Your task to perform on an android device: Search for "macbook pro" on target.com, select the first entry, and add it to the cart. Image 0: 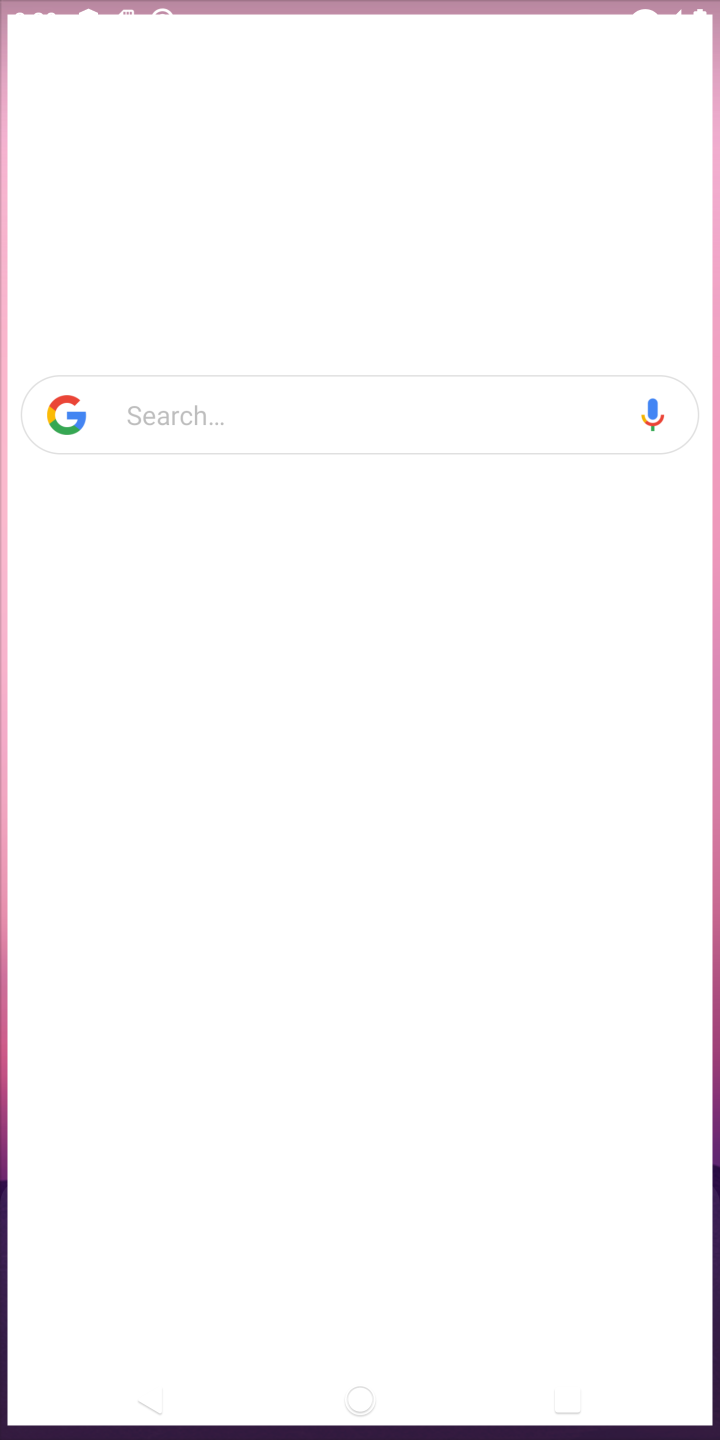
Step 0: press home button
Your task to perform on an android device: Search for "macbook pro" on target.com, select the first entry, and add it to the cart. Image 1: 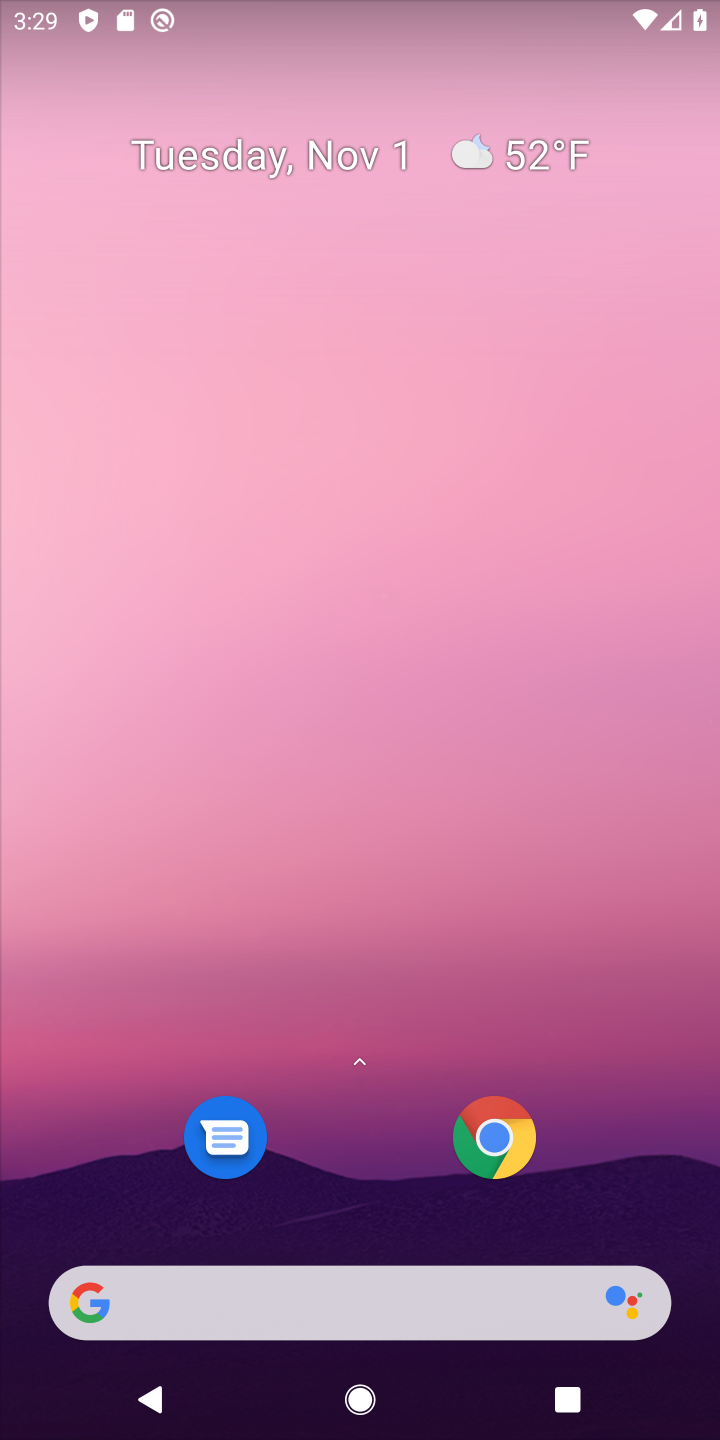
Step 1: click (365, 1315)
Your task to perform on an android device: Search for "macbook pro" on target.com, select the first entry, and add it to the cart. Image 2: 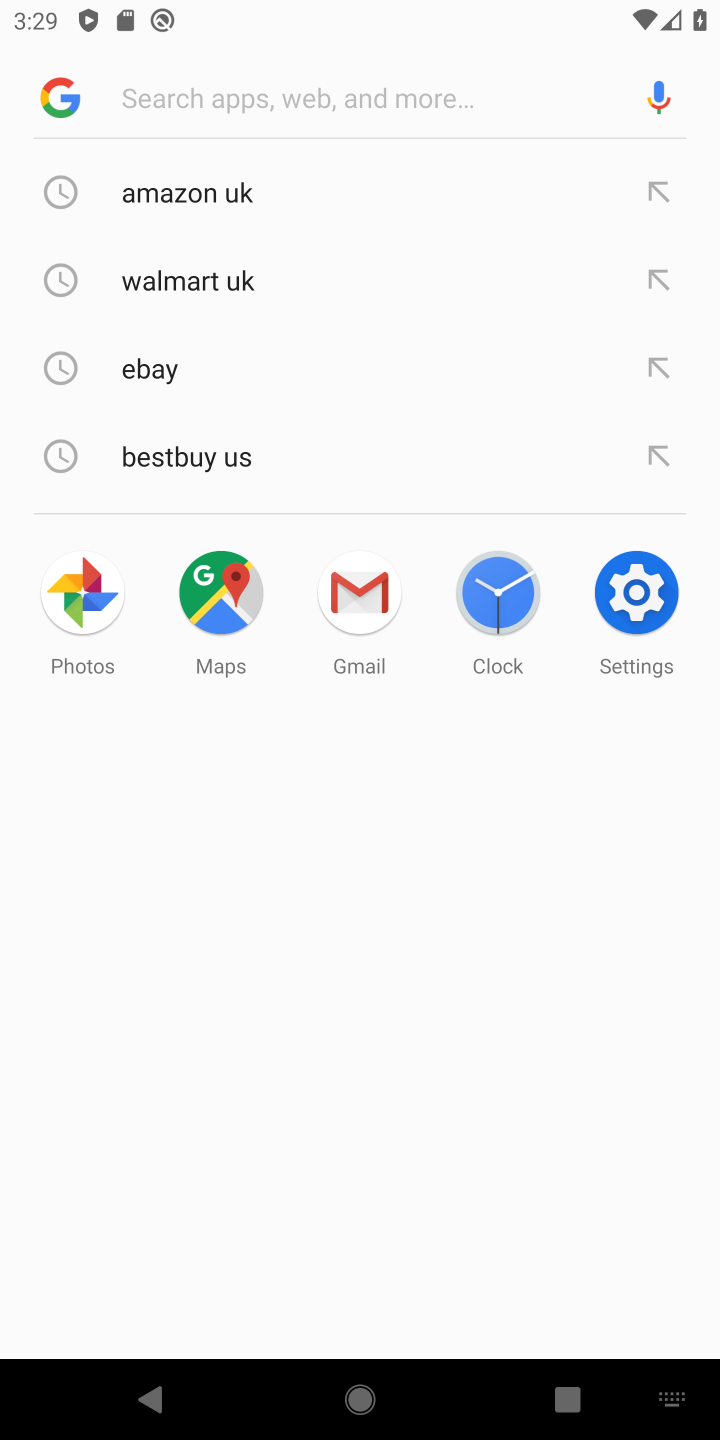
Step 2: type "macbook pro"
Your task to perform on an android device: Search for "macbook pro" on target.com, select the first entry, and add it to the cart. Image 3: 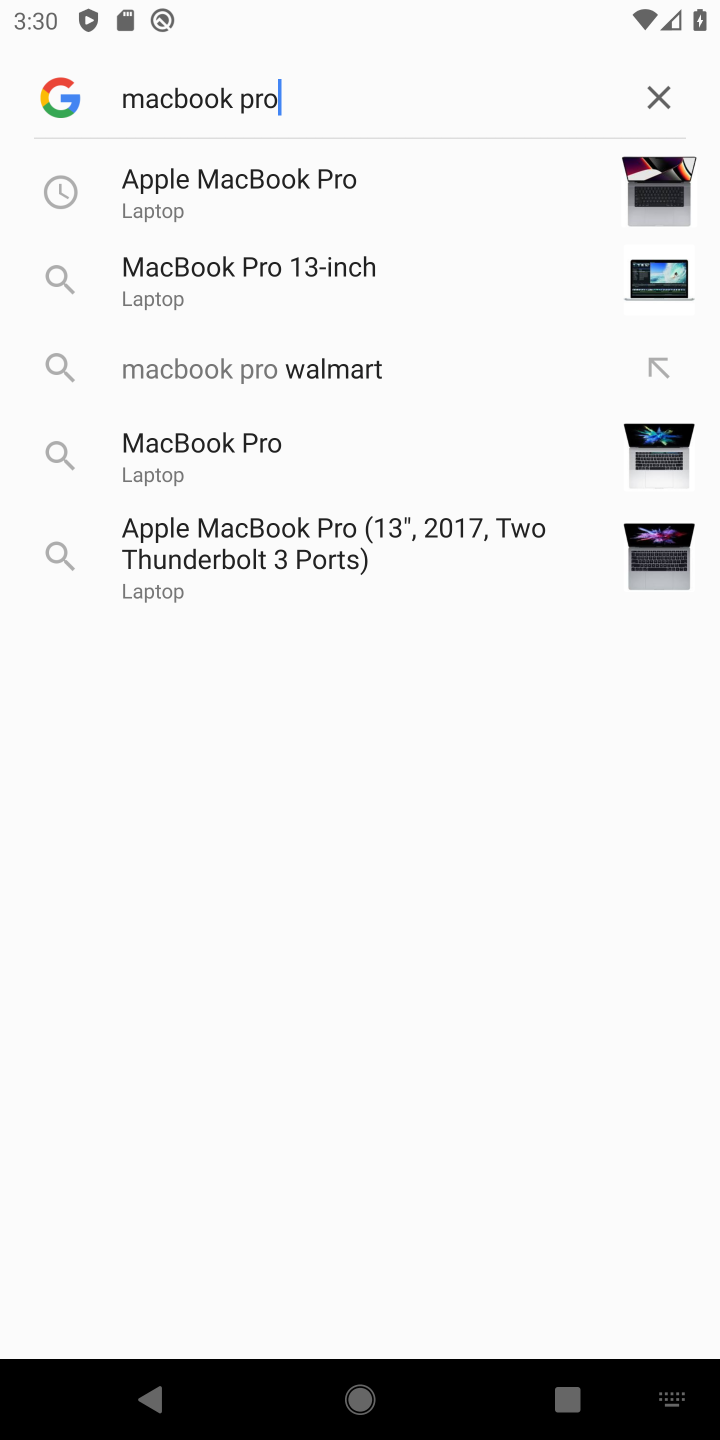
Step 3: click (181, 195)
Your task to perform on an android device: Search for "macbook pro" on target.com, select the first entry, and add it to the cart. Image 4: 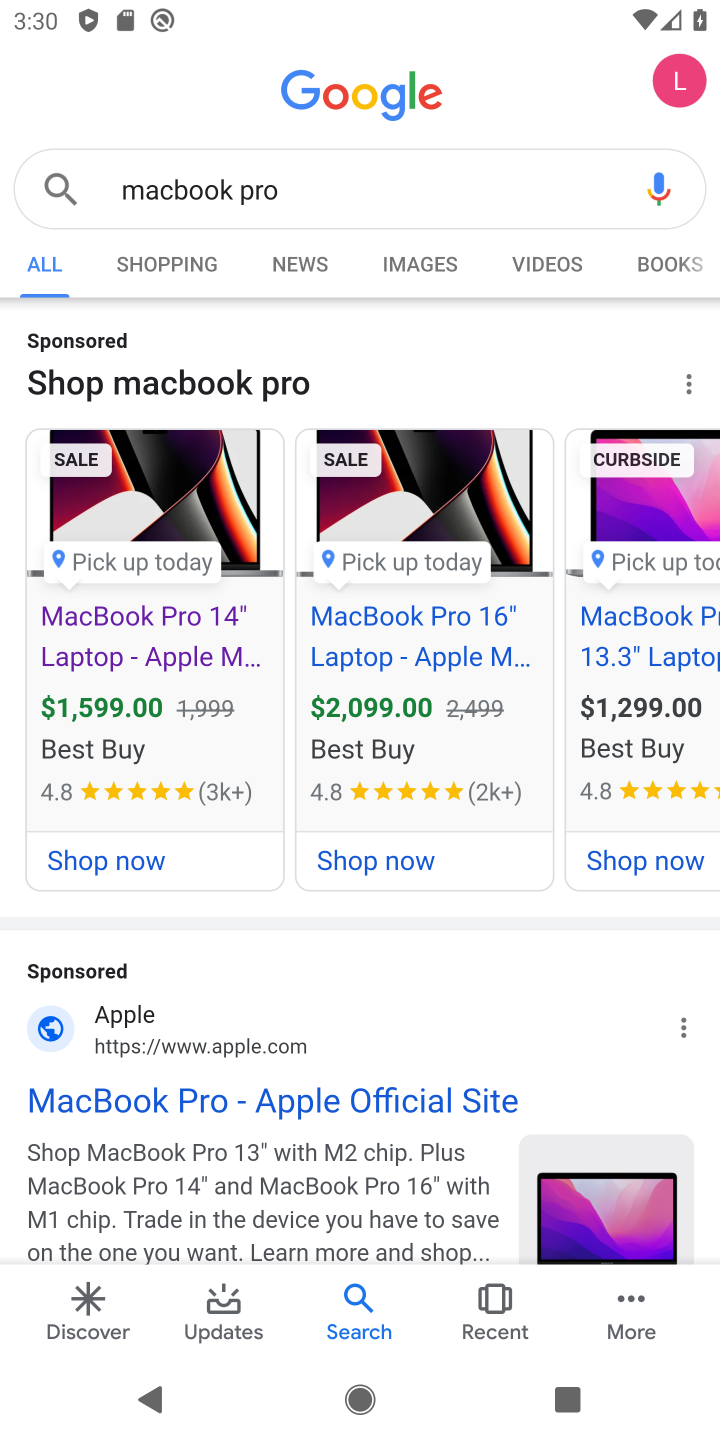
Step 4: click (357, 1081)
Your task to perform on an android device: Search for "macbook pro" on target.com, select the first entry, and add it to the cart. Image 5: 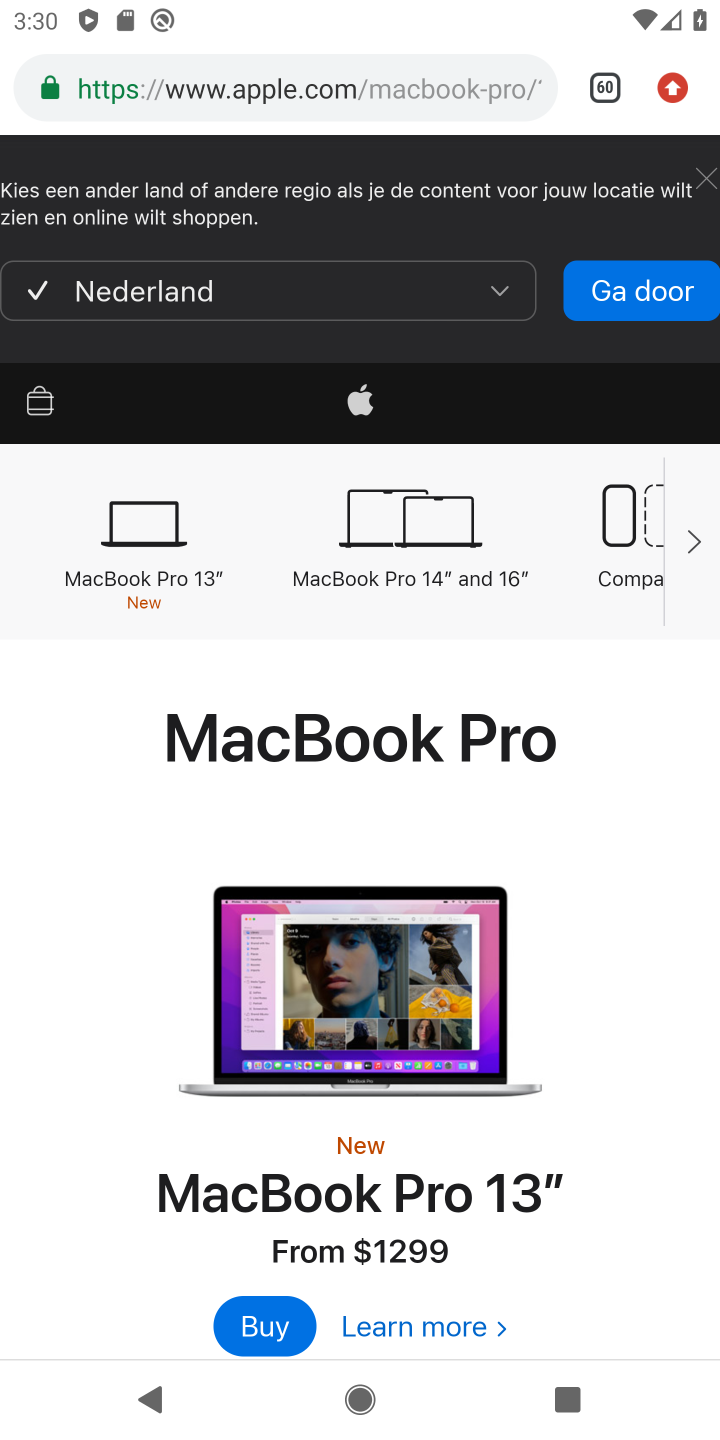
Step 5: task complete